Your task to perform on an android device: Go to Google Image 0: 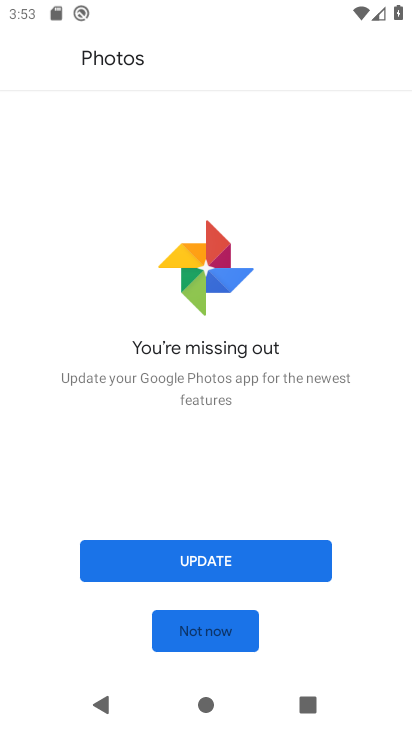
Step 0: press home button
Your task to perform on an android device: Go to Google Image 1: 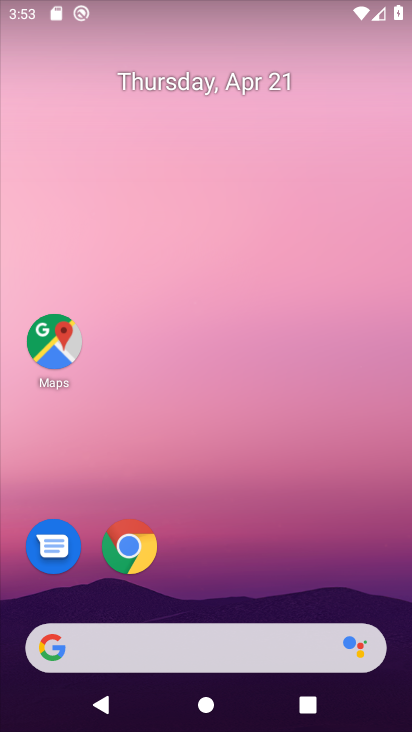
Step 1: click (37, 655)
Your task to perform on an android device: Go to Google Image 2: 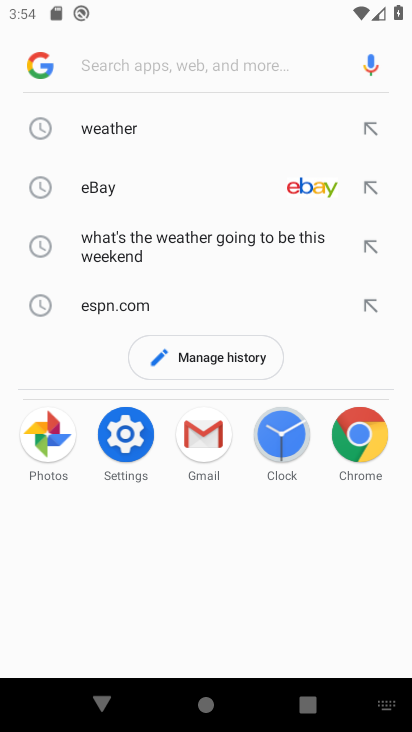
Step 2: click (40, 69)
Your task to perform on an android device: Go to Google Image 3: 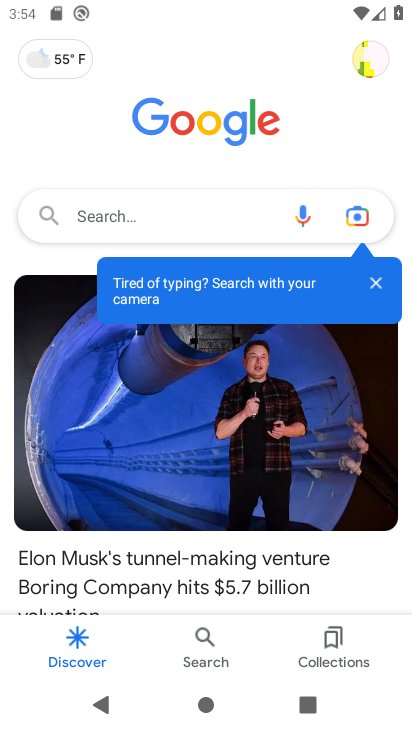
Step 3: task complete